Your task to perform on an android device: Go to privacy settings Image 0: 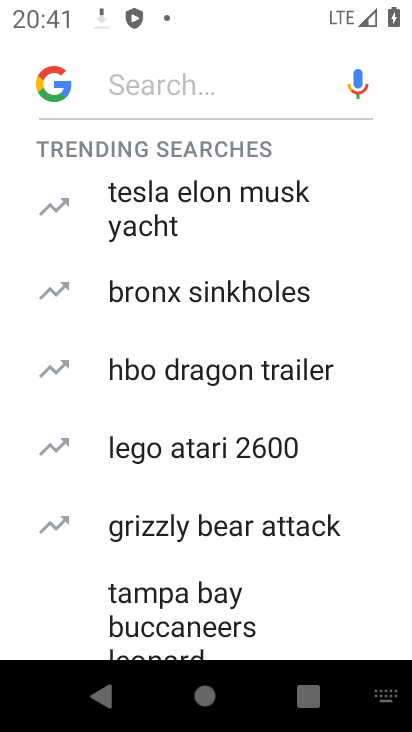
Step 0: press back button
Your task to perform on an android device: Go to privacy settings Image 1: 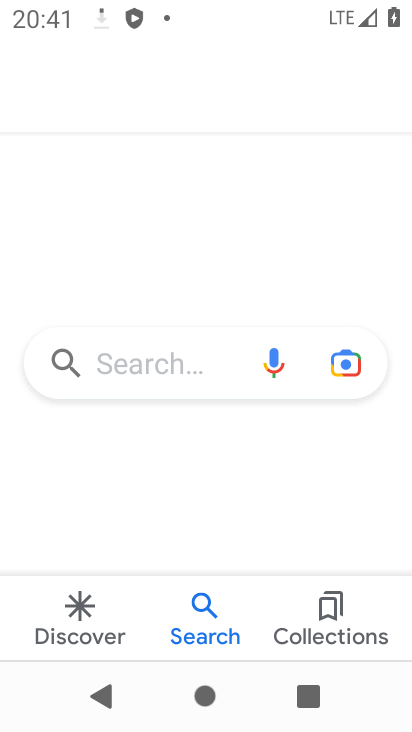
Step 1: press back button
Your task to perform on an android device: Go to privacy settings Image 2: 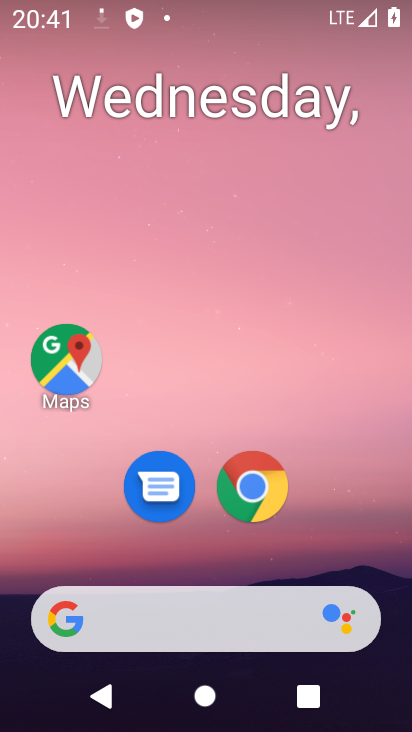
Step 2: drag from (142, 582) to (194, 3)
Your task to perform on an android device: Go to privacy settings Image 3: 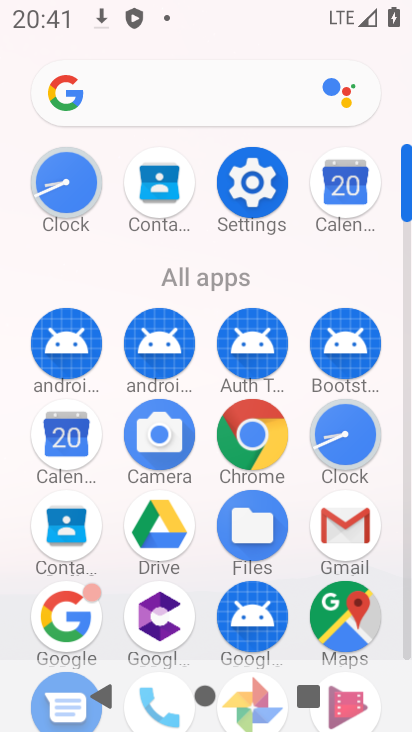
Step 3: click (243, 168)
Your task to perform on an android device: Go to privacy settings Image 4: 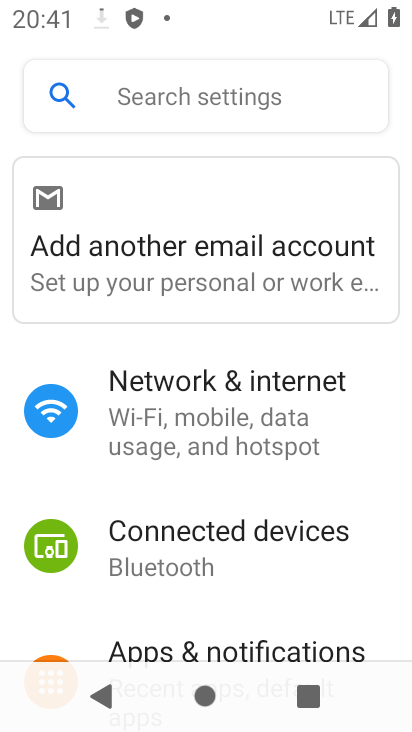
Step 4: drag from (161, 582) to (224, 6)
Your task to perform on an android device: Go to privacy settings Image 5: 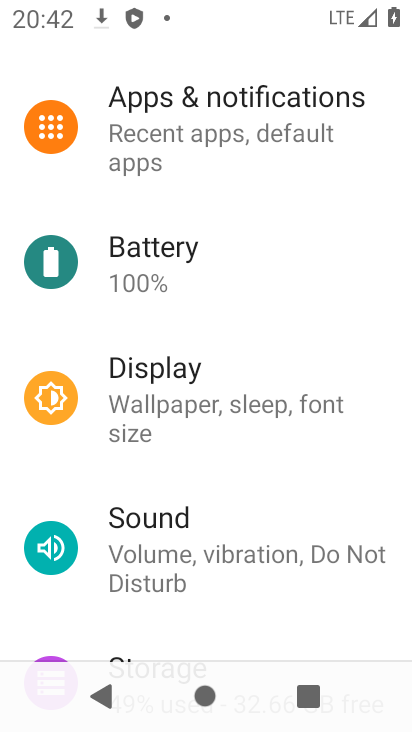
Step 5: drag from (196, 549) to (262, 209)
Your task to perform on an android device: Go to privacy settings Image 6: 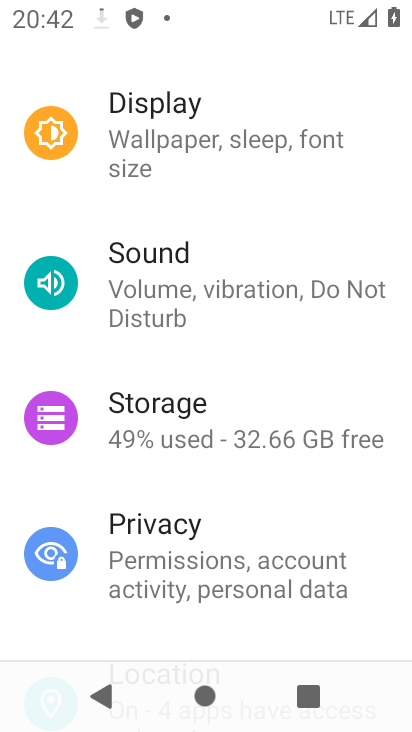
Step 6: click (168, 562)
Your task to perform on an android device: Go to privacy settings Image 7: 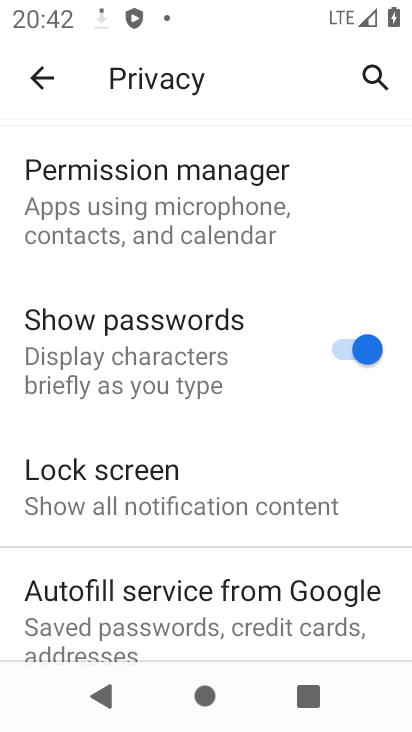
Step 7: task complete